Your task to perform on an android device: check data usage Image 0: 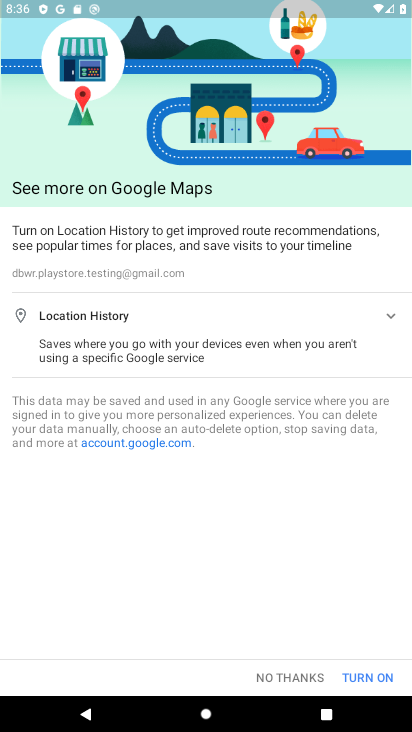
Step 0: press home button
Your task to perform on an android device: check data usage Image 1: 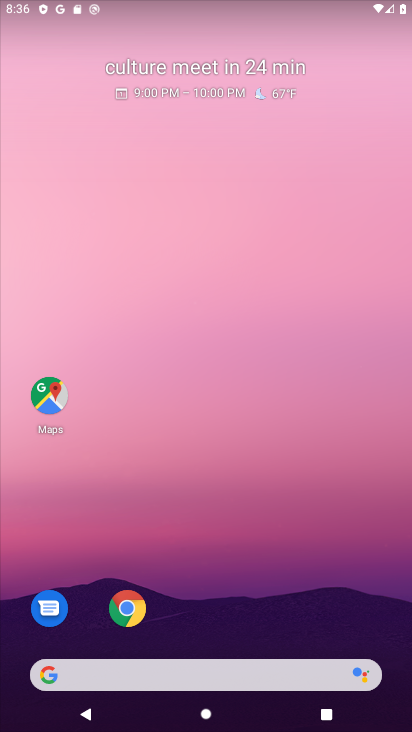
Step 1: drag from (258, 642) to (232, 85)
Your task to perform on an android device: check data usage Image 2: 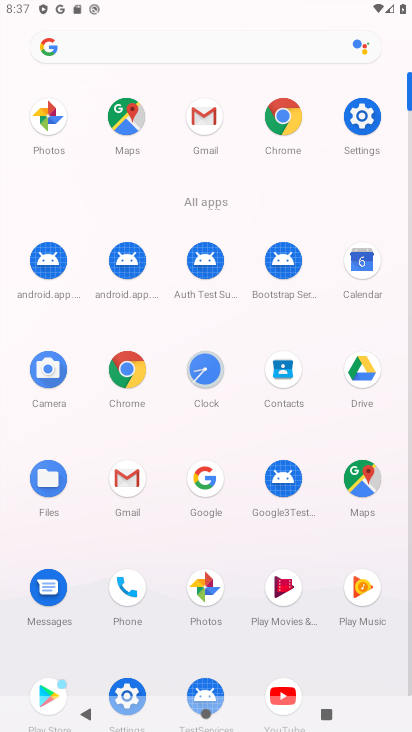
Step 2: click (356, 143)
Your task to perform on an android device: check data usage Image 3: 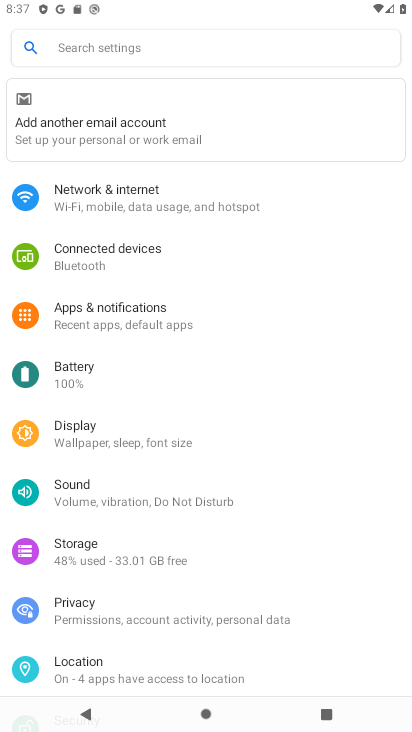
Step 3: click (215, 111)
Your task to perform on an android device: check data usage Image 4: 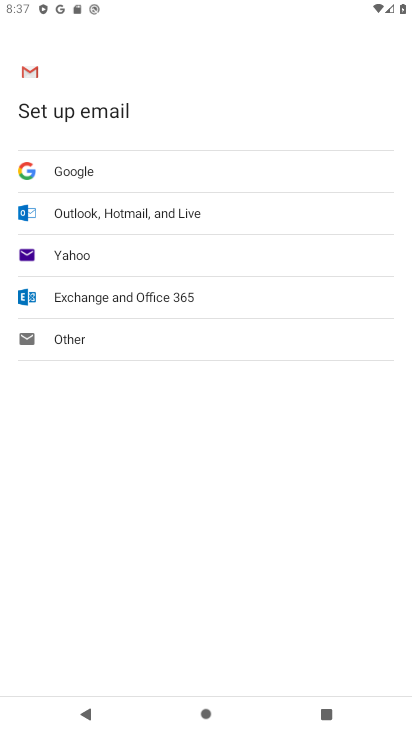
Step 4: press back button
Your task to perform on an android device: check data usage Image 5: 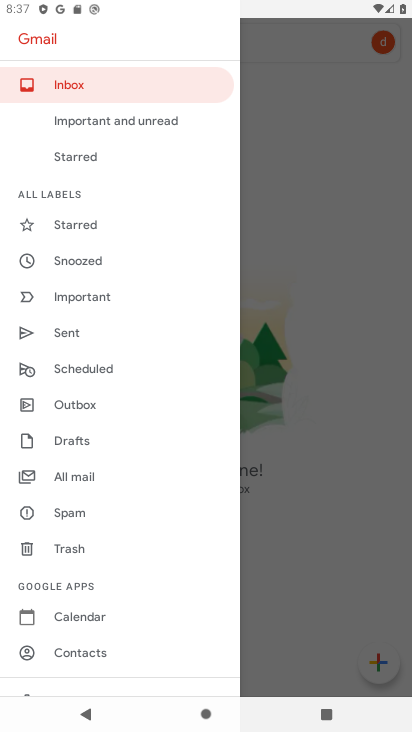
Step 5: press back button
Your task to perform on an android device: check data usage Image 6: 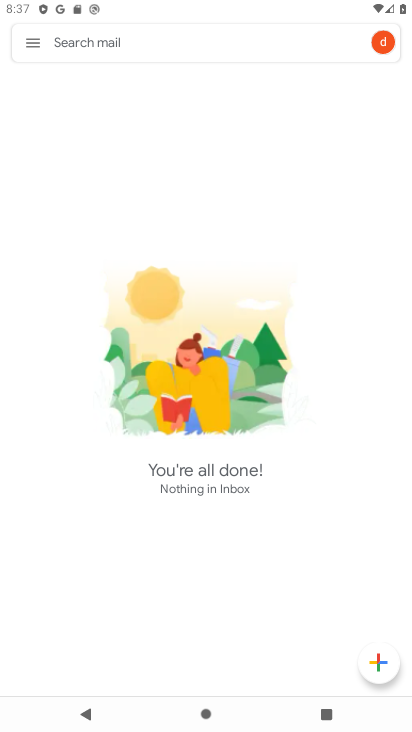
Step 6: press back button
Your task to perform on an android device: check data usage Image 7: 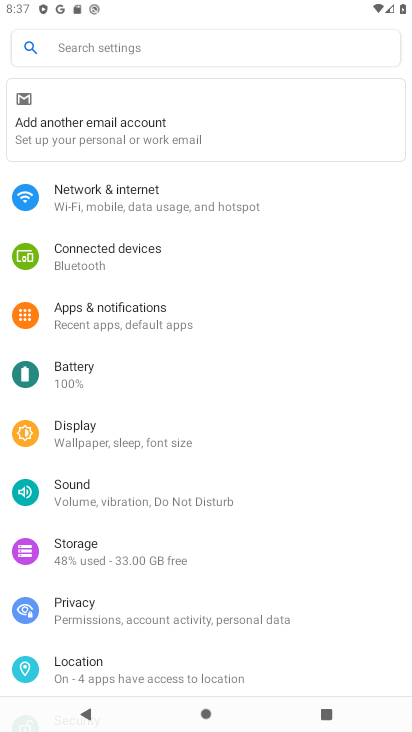
Step 7: click (179, 197)
Your task to perform on an android device: check data usage Image 8: 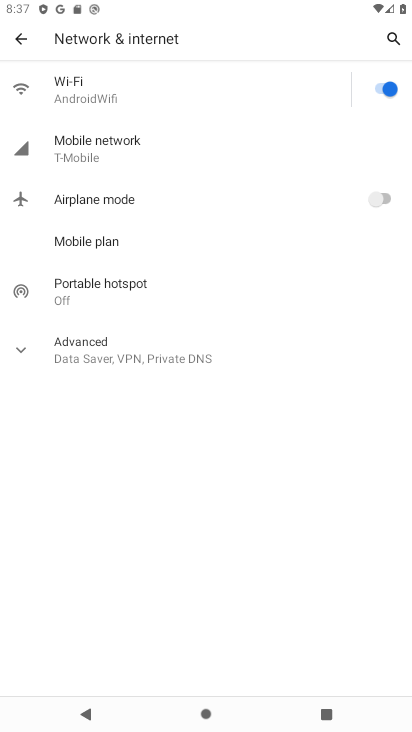
Step 8: task complete